Your task to perform on an android device: Show me productivity apps on the Play Store Image 0: 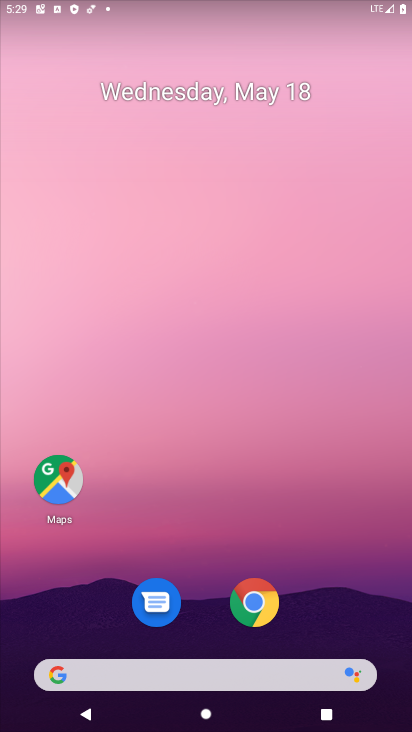
Step 0: drag from (336, 607) to (353, 9)
Your task to perform on an android device: Show me productivity apps on the Play Store Image 1: 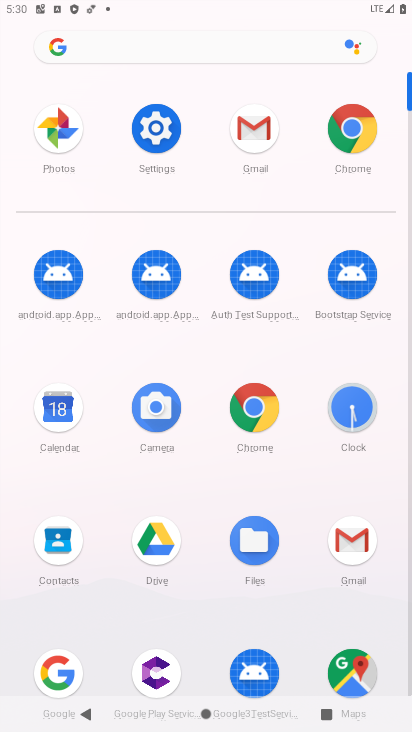
Step 1: drag from (298, 632) to (307, 216)
Your task to perform on an android device: Show me productivity apps on the Play Store Image 2: 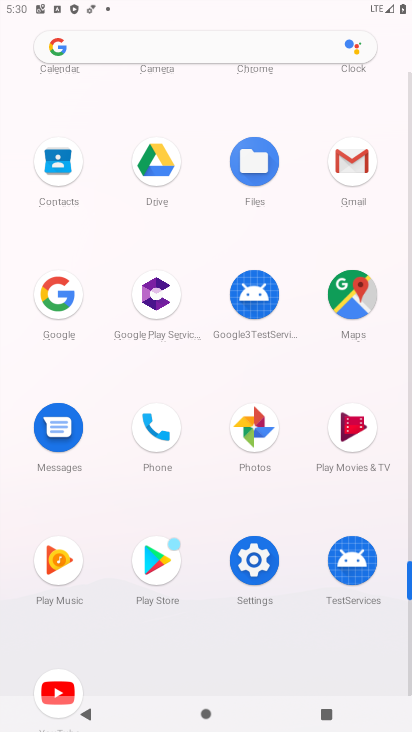
Step 2: click (172, 552)
Your task to perform on an android device: Show me productivity apps on the Play Store Image 3: 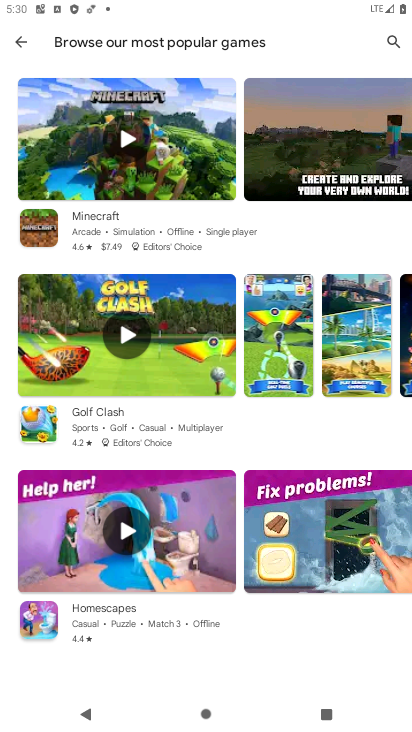
Step 3: drag from (189, 223) to (205, 710)
Your task to perform on an android device: Show me productivity apps on the Play Store Image 4: 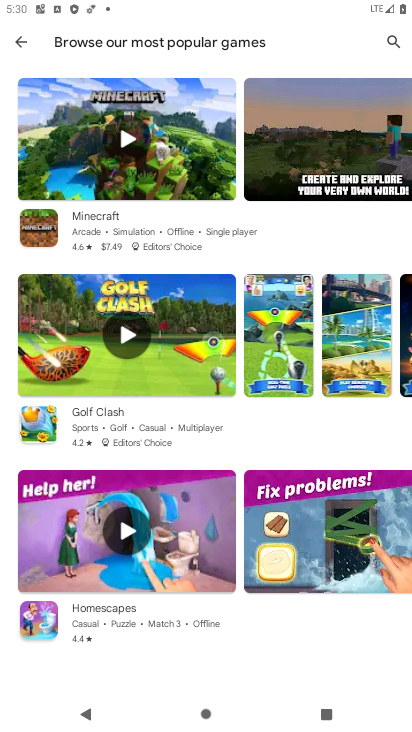
Step 4: press back button
Your task to perform on an android device: Show me productivity apps on the Play Store Image 5: 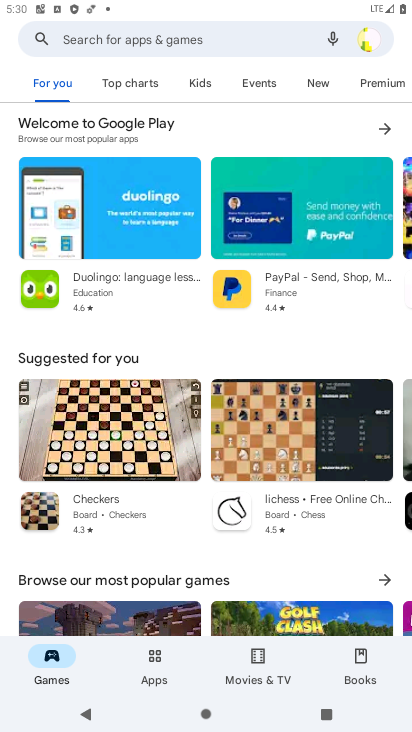
Step 5: click (153, 672)
Your task to perform on an android device: Show me productivity apps on the Play Store Image 6: 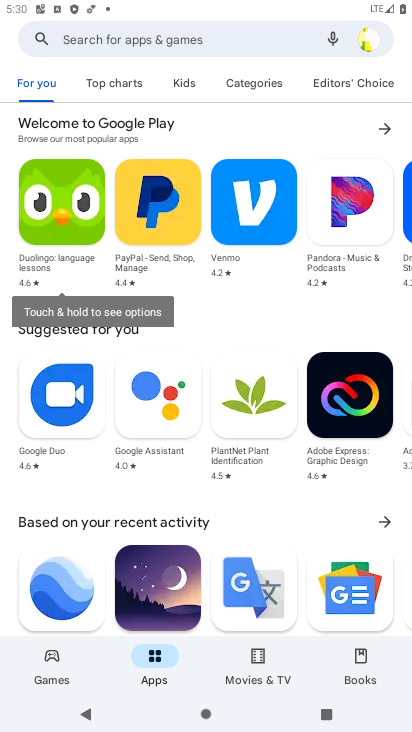
Step 6: drag from (212, 184) to (276, 708)
Your task to perform on an android device: Show me productivity apps on the Play Store Image 7: 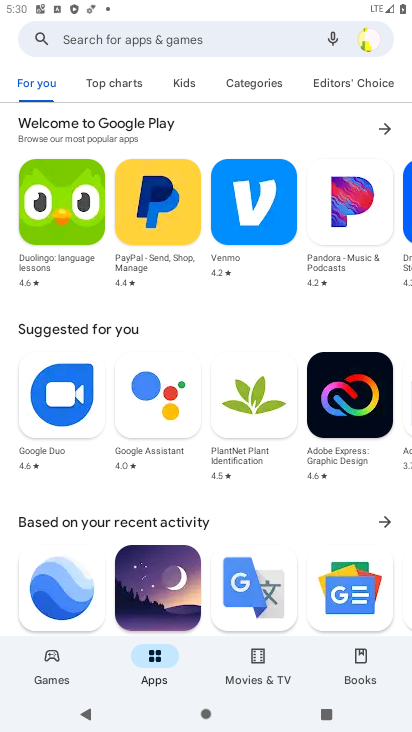
Step 7: drag from (276, 479) to (310, 87)
Your task to perform on an android device: Show me productivity apps on the Play Store Image 8: 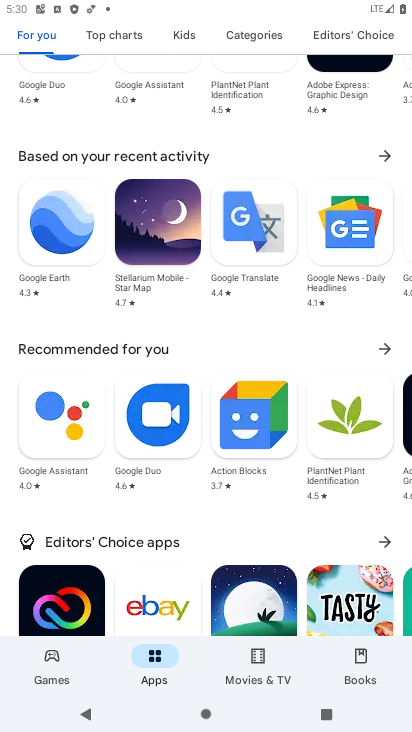
Step 8: drag from (242, 512) to (275, 126)
Your task to perform on an android device: Show me productivity apps on the Play Store Image 9: 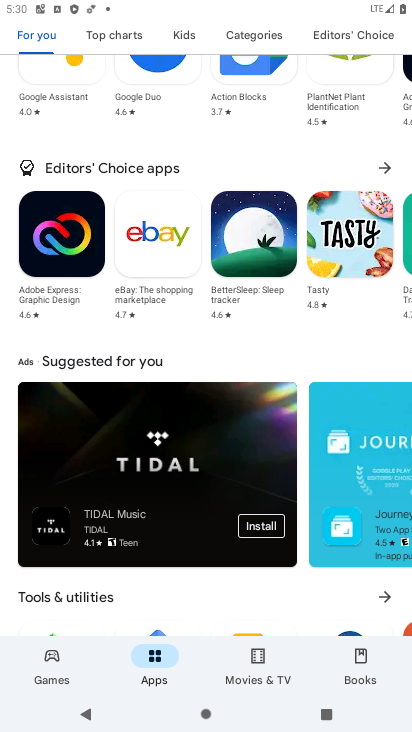
Step 9: drag from (234, 603) to (289, 117)
Your task to perform on an android device: Show me productivity apps on the Play Store Image 10: 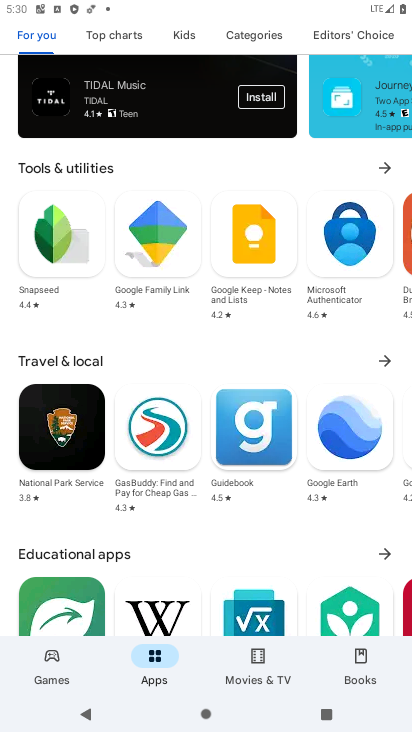
Step 10: drag from (277, 559) to (294, 186)
Your task to perform on an android device: Show me productivity apps on the Play Store Image 11: 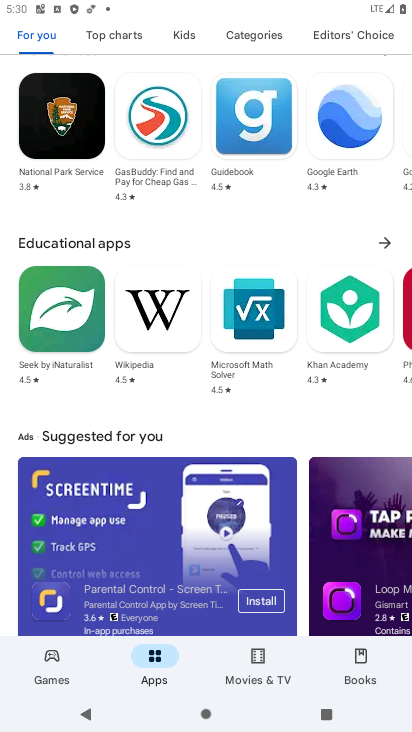
Step 11: drag from (316, 416) to (321, 144)
Your task to perform on an android device: Show me productivity apps on the Play Store Image 12: 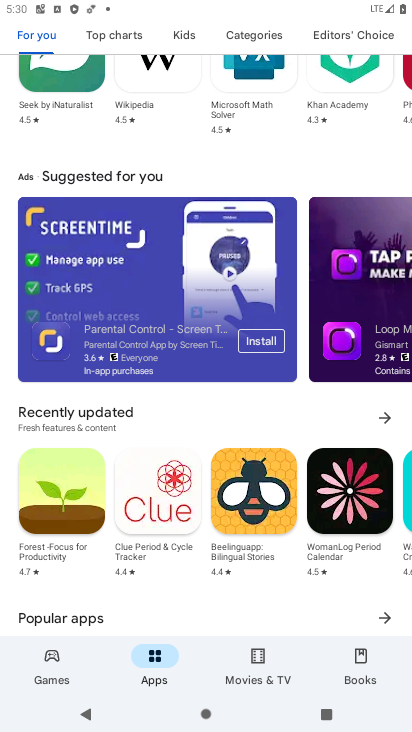
Step 12: drag from (271, 566) to (283, 48)
Your task to perform on an android device: Show me productivity apps on the Play Store Image 13: 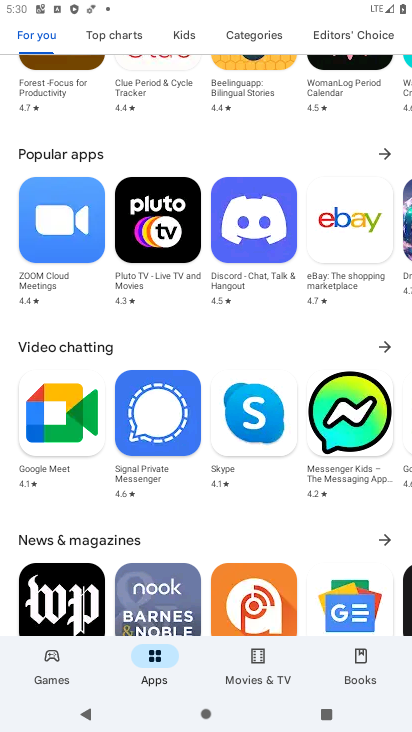
Step 13: drag from (277, 527) to (291, 51)
Your task to perform on an android device: Show me productivity apps on the Play Store Image 14: 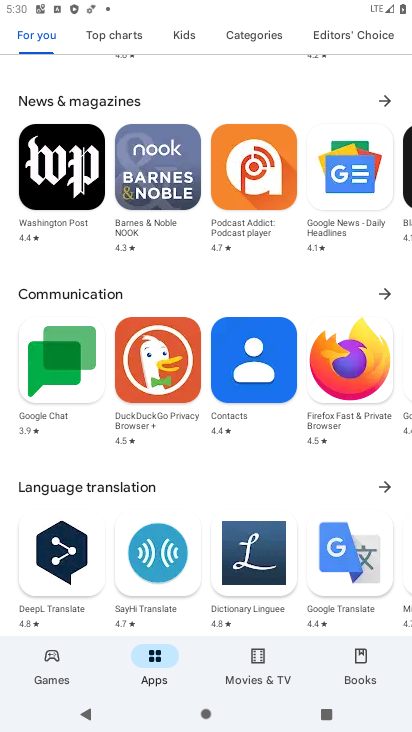
Step 14: drag from (308, 518) to (326, 164)
Your task to perform on an android device: Show me productivity apps on the Play Store Image 15: 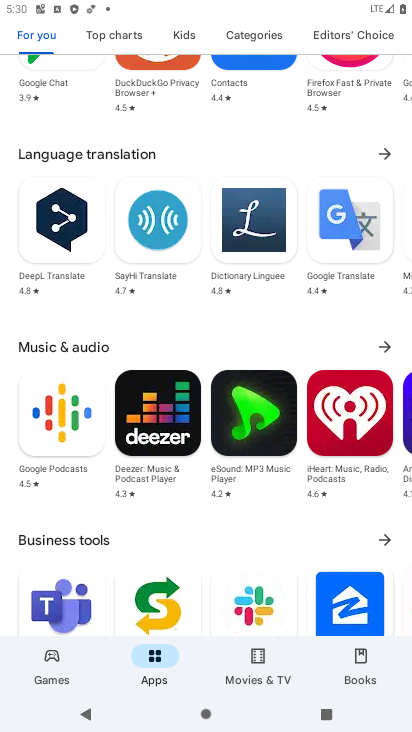
Step 15: drag from (302, 548) to (297, 199)
Your task to perform on an android device: Show me productivity apps on the Play Store Image 16: 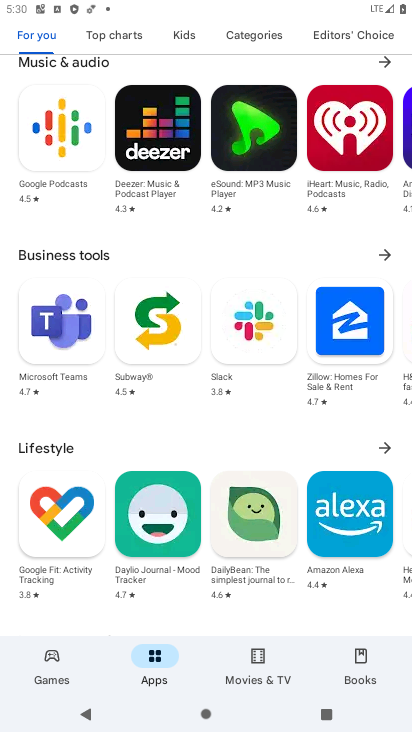
Step 16: drag from (276, 598) to (269, 172)
Your task to perform on an android device: Show me productivity apps on the Play Store Image 17: 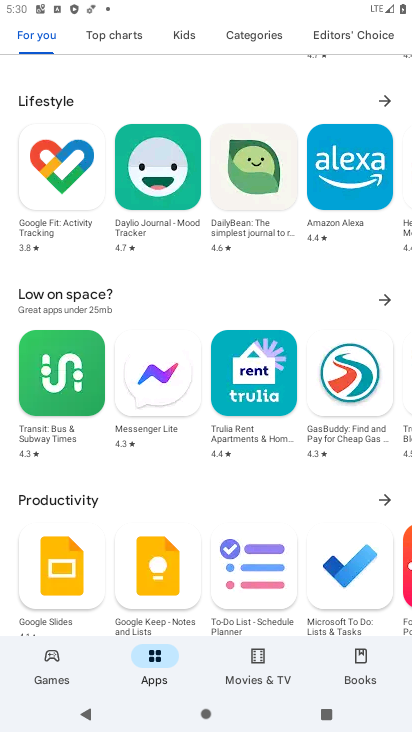
Step 17: click (387, 496)
Your task to perform on an android device: Show me productivity apps on the Play Store Image 18: 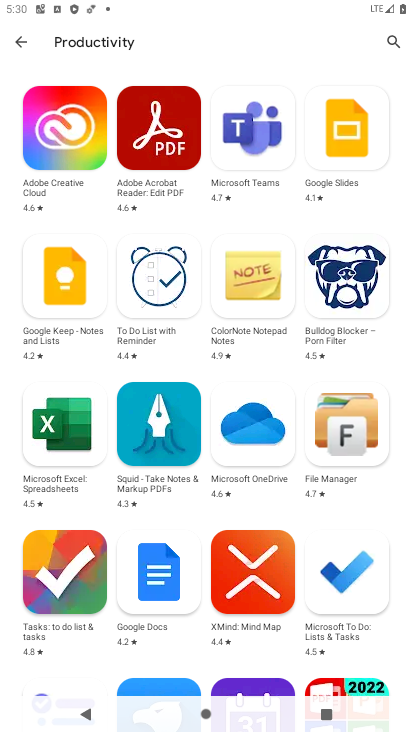
Step 18: task complete